Your task to perform on an android device: check google app version Image 0: 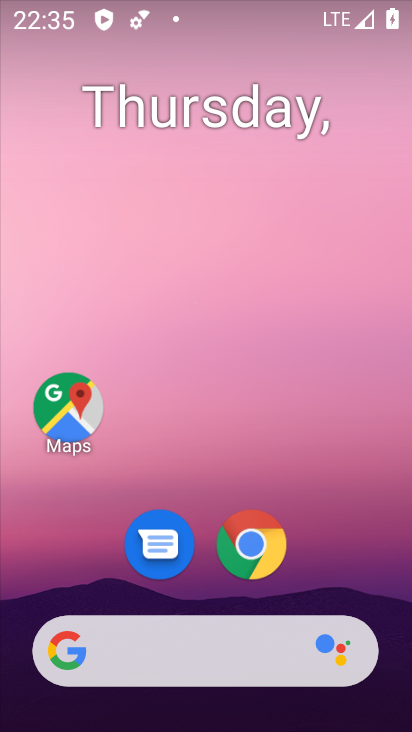
Step 0: drag from (327, 540) to (226, 92)
Your task to perform on an android device: check google app version Image 1: 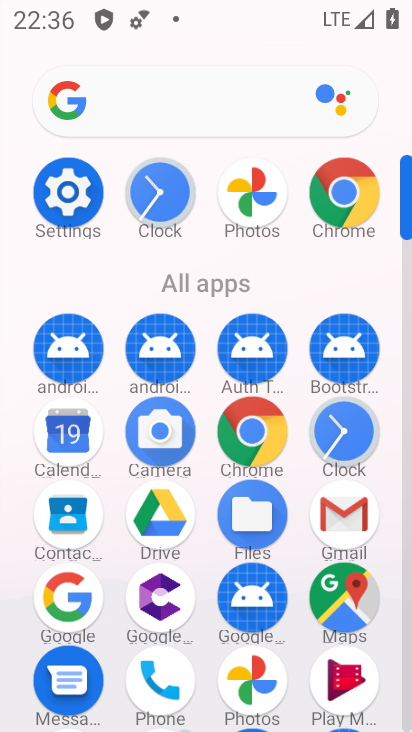
Step 1: click (57, 606)
Your task to perform on an android device: check google app version Image 2: 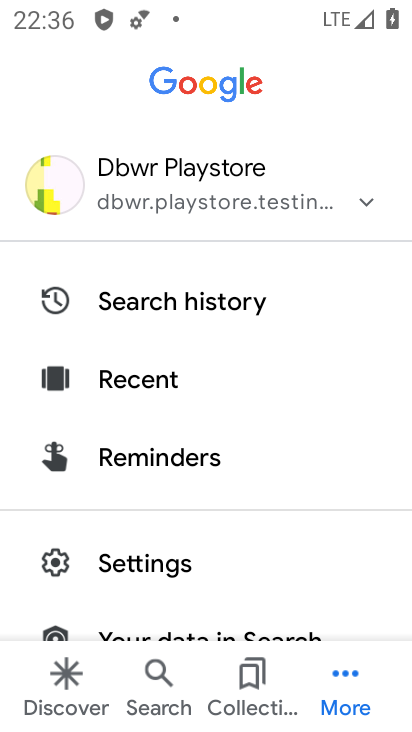
Step 2: click (123, 553)
Your task to perform on an android device: check google app version Image 3: 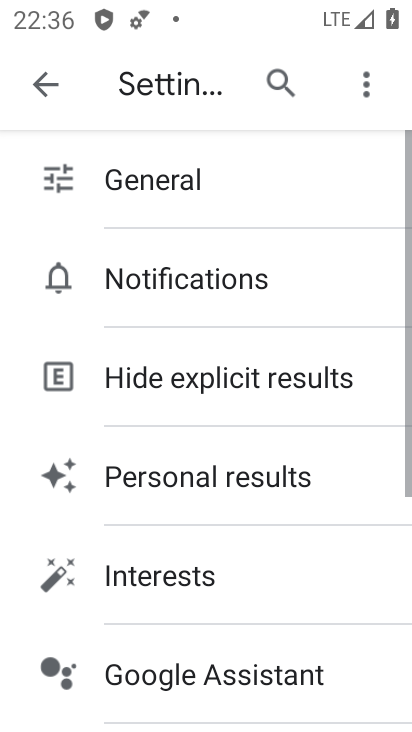
Step 3: drag from (177, 652) to (154, 233)
Your task to perform on an android device: check google app version Image 4: 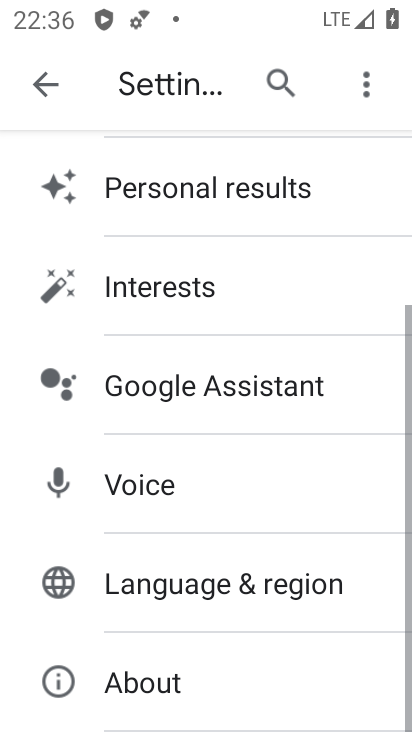
Step 4: click (160, 673)
Your task to perform on an android device: check google app version Image 5: 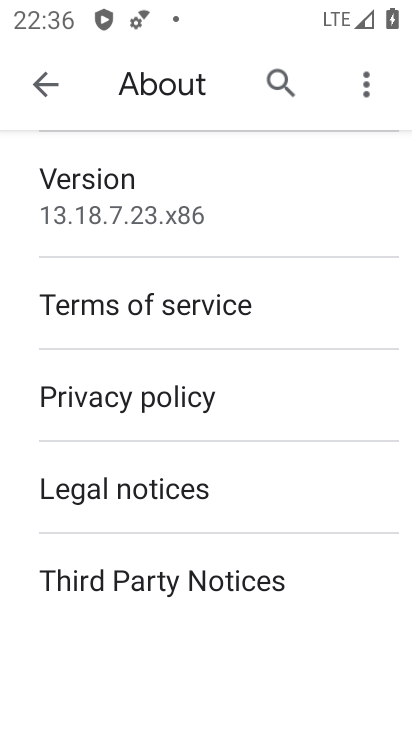
Step 5: task complete